Your task to perform on an android device: What's the weather? Image 0: 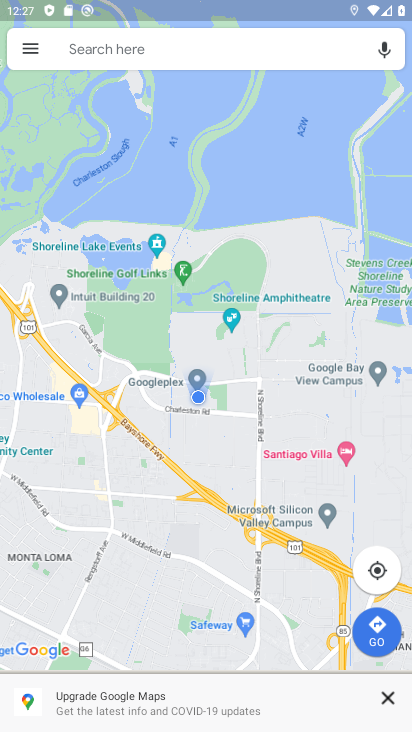
Step 0: drag from (353, 461) to (301, 88)
Your task to perform on an android device: What's the weather? Image 1: 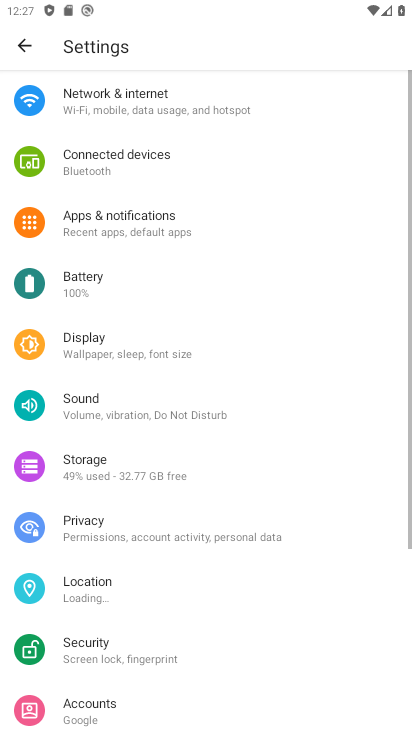
Step 1: task complete